Your task to perform on an android device: Search for sushi restaurants on Maps Image 0: 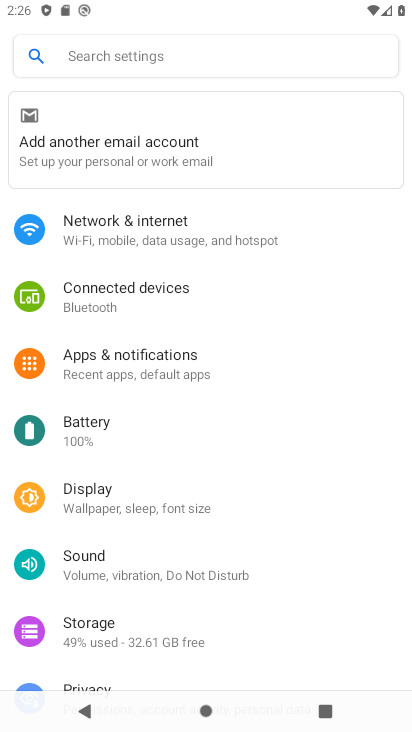
Step 0: press home button
Your task to perform on an android device: Search for sushi restaurants on Maps Image 1: 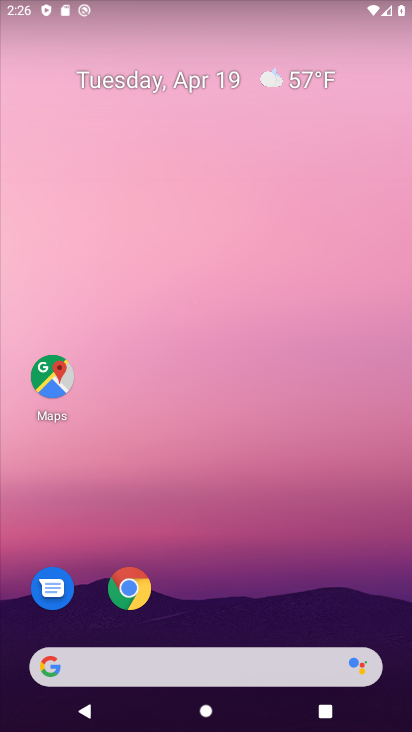
Step 1: click (49, 371)
Your task to perform on an android device: Search for sushi restaurants on Maps Image 2: 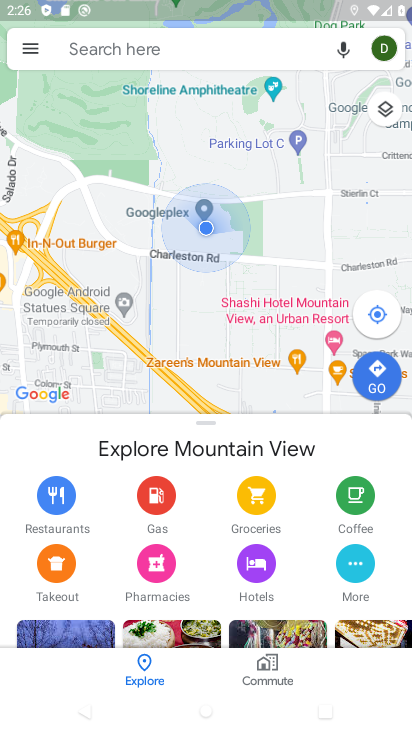
Step 2: click (217, 41)
Your task to perform on an android device: Search for sushi restaurants on Maps Image 3: 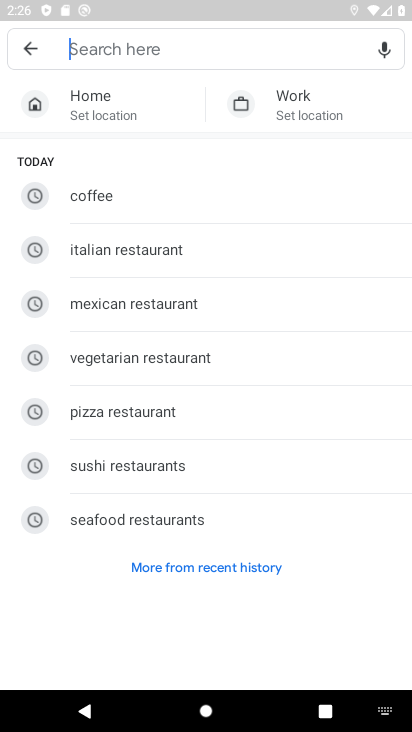
Step 3: click (174, 463)
Your task to perform on an android device: Search for sushi restaurants on Maps Image 4: 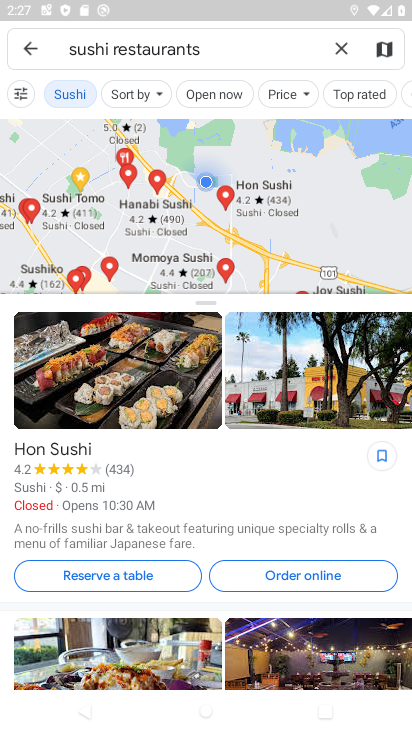
Step 4: task complete